Your task to perform on an android device: Open settings on Google Maps Image 0: 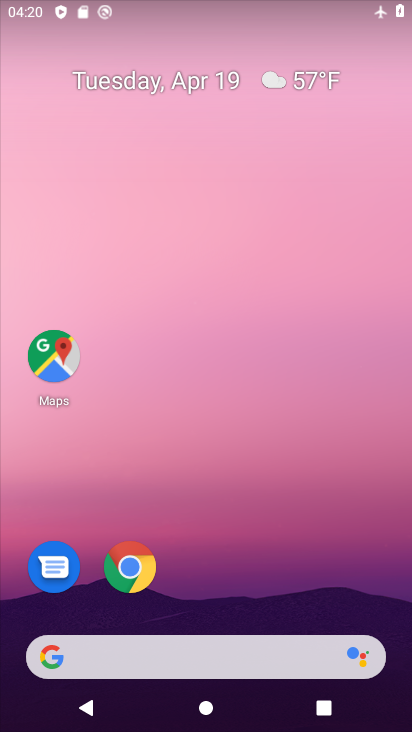
Step 0: drag from (365, 604) to (366, 177)
Your task to perform on an android device: Open settings on Google Maps Image 1: 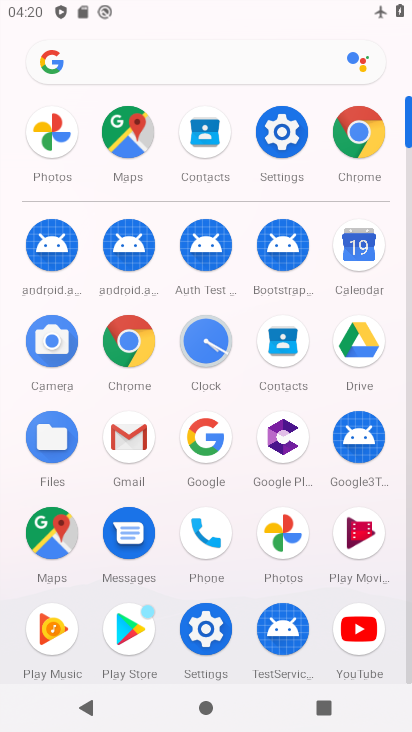
Step 1: click (54, 540)
Your task to perform on an android device: Open settings on Google Maps Image 2: 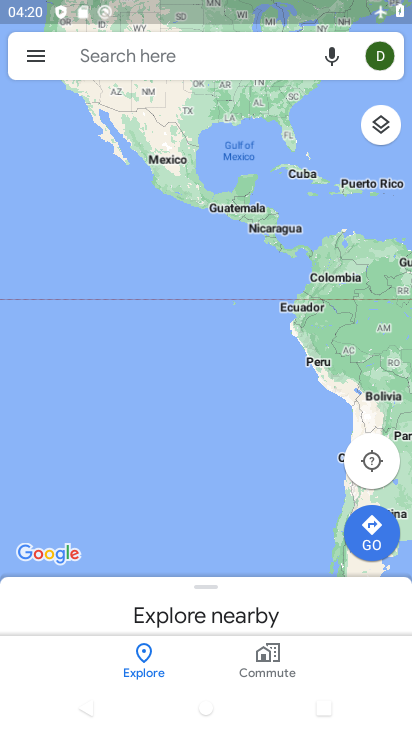
Step 2: click (35, 53)
Your task to perform on an android device: Open settings on Google Maps Image 3: 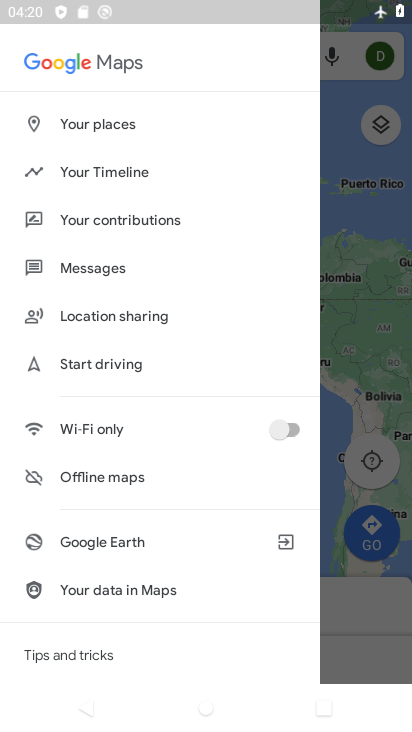
Step 3: drag from (230, 238) to (232, 393)
Your task to perform on an android device: Open settings on Google Maps Image 4: 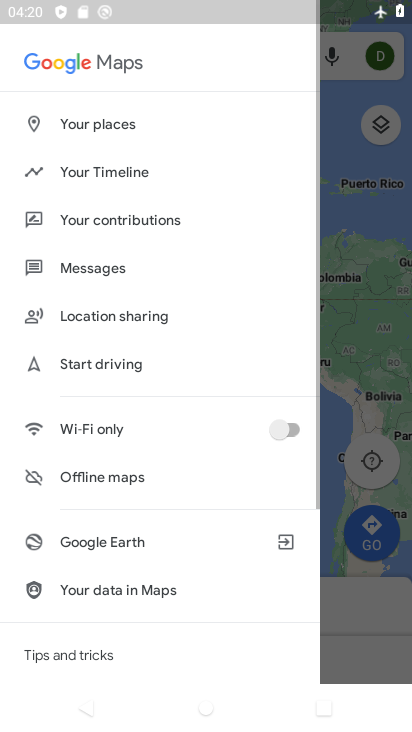
Step 4: drag from (239, 442) to (239, 351)
Your task to perform on an android device: Open settings on Google Maps Image 5: 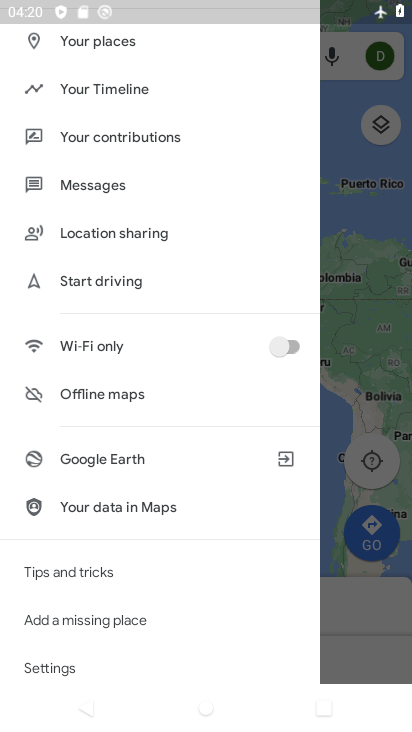
Step 5: drag from (238, 465) to (242, 339)
Your task to perform on an android device: Open settings on Google Maps Image 6: 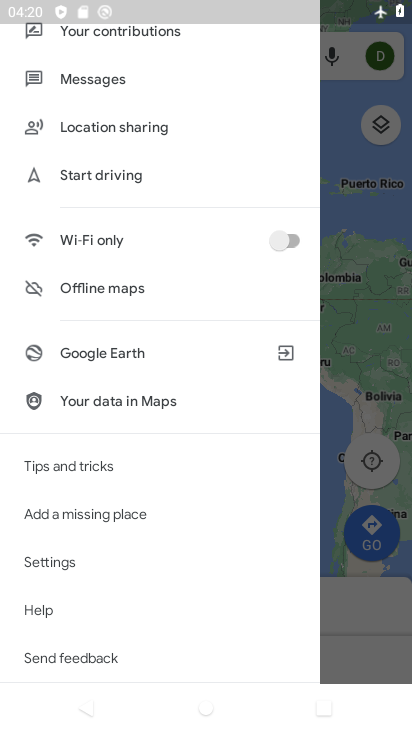
Step 6: drag from (226, 526) to (224, 371)
Your task to perform on an android device: Open settings on Google Maps Image 7: 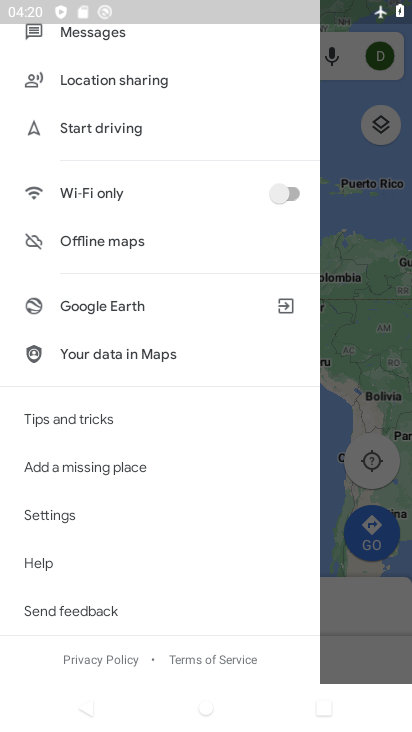
Step 7: drag from (205, 325) to (195, 433)
Your task to perform on an android device: Open settings on Google Maps Image 8: 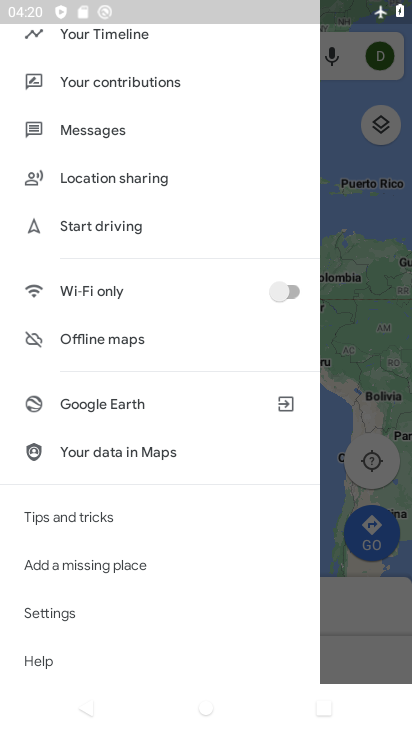
Step 8: drag from (190, 312) to (187, 427)
Your task to perform on an android device: Open settings on Google Maps Image 9: 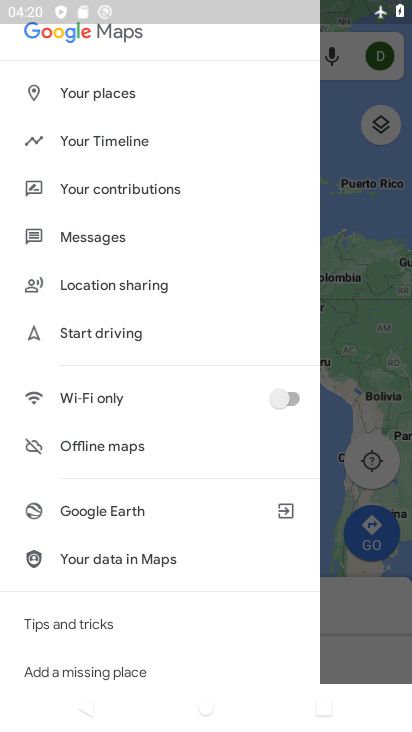
Step 9: drag from (203, 303) to (198, 432)
Your task to perform on an android device: Open settings on Google Maps Image 10: 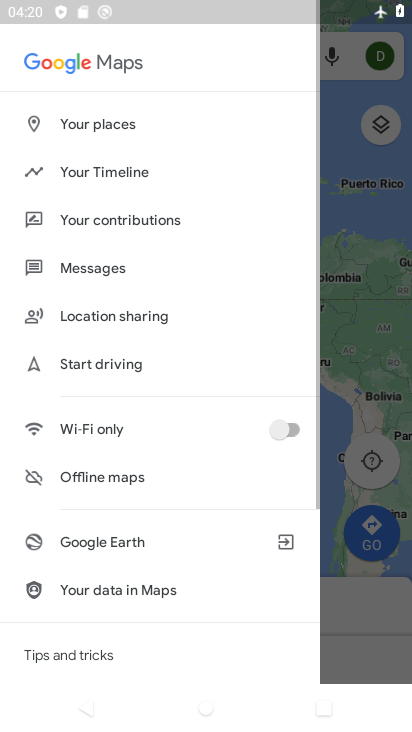
Step 10: drag from (201, 465) to (212, 383)
Your task to perform on an android device: Open settings on Google Maps Image 11: 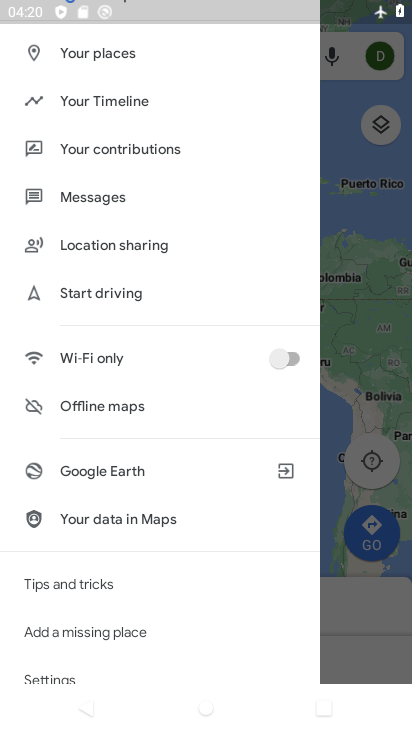
Step 11: drag from (211, 481) to (213, 386)
Your task to perform on an android device: Open settings on Google Maps Image 12: 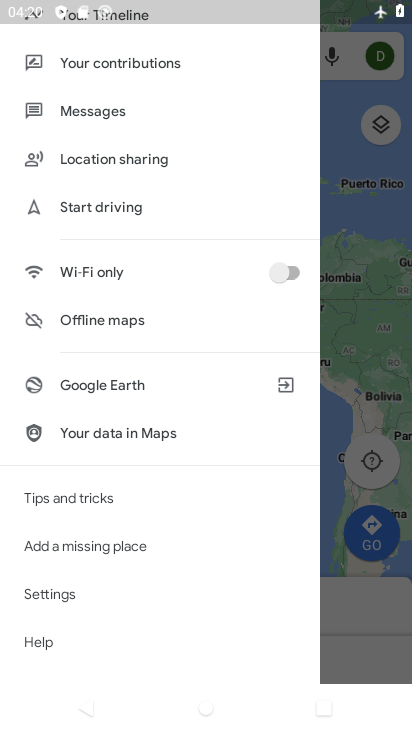
Step 12: drag from (214, 396) to (214, 360)
Your task to perform on an android device: Open settings on Google Maps Image 13: 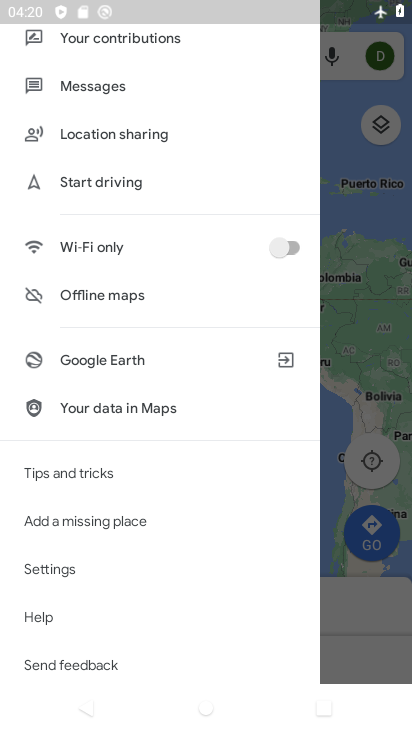
Step 13: drag from (182, 564) to (202, 430)
Your task to perform on an android device: Open settings on Google Maps Image 14: 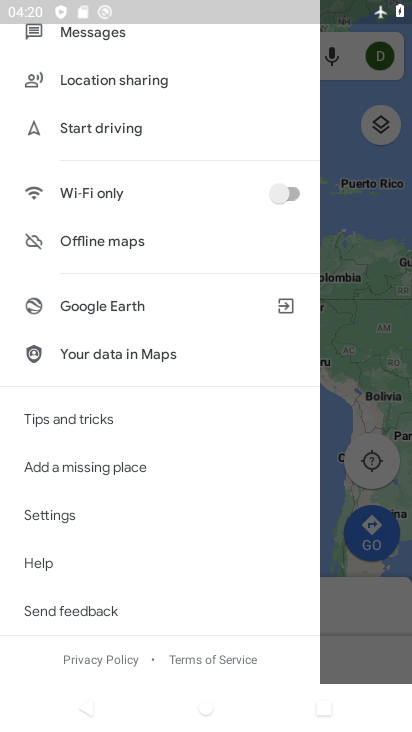
Step 14: drag from (169, 576) to (197, 425)
Your task to perform on an android device: Open settings on Google Maps Image 15: 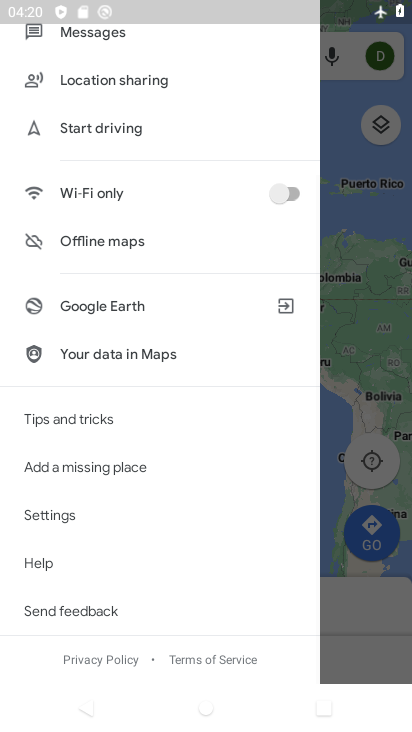
Step 15: click (66, 512)
Your task to perform on an android device: Open settings on Google Maps Image 16: 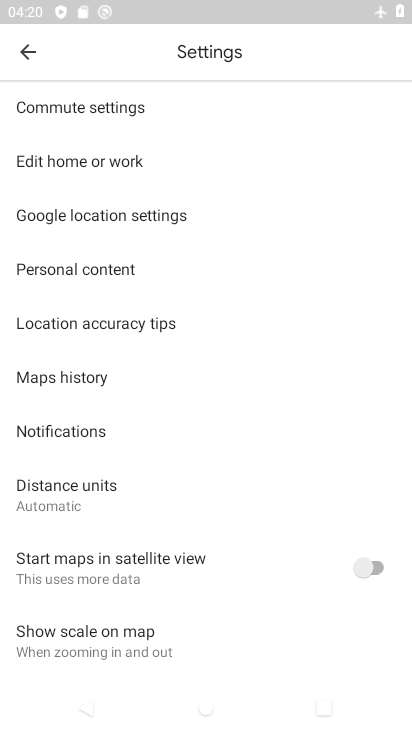
Step 16: task complete